Your task to perform on an android device: open chrome privacy settings Image 0: 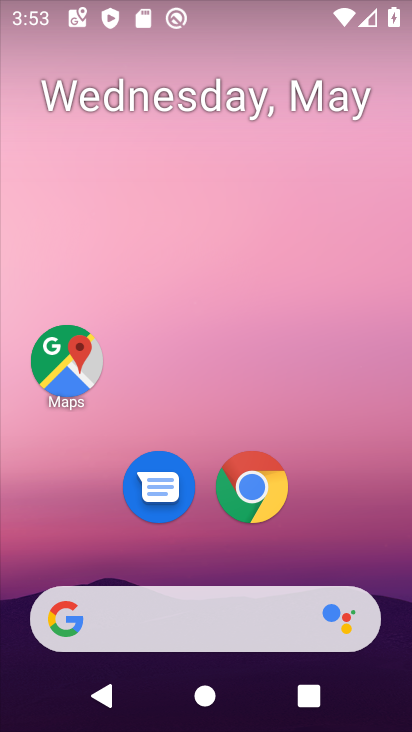
Step 0: drag from (329, 534) to (254, 29)
Your task to perform on an android device: open chrome privacy settings Image 1: 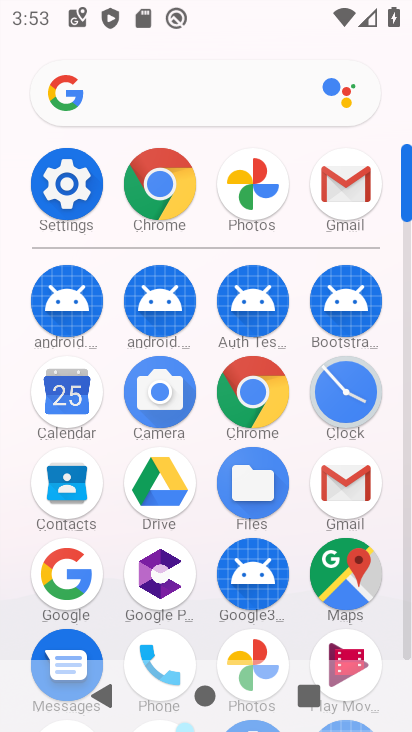
Step 1: drag from (10, 559) to (13, 343)
Your task to perform on an android device: open chrome privacy settings Image 2: 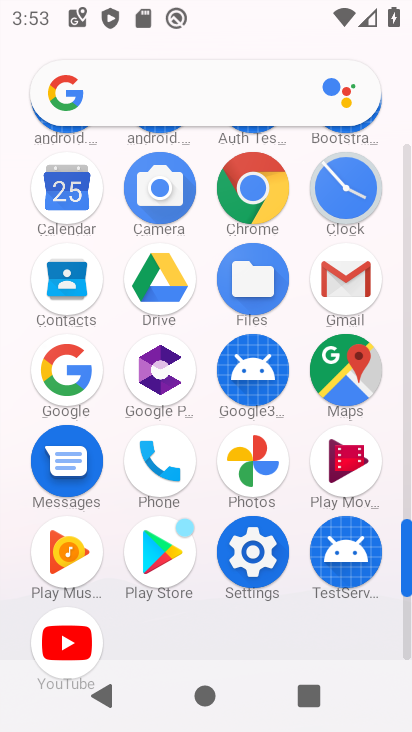
Step 2: click (250, 184)
Your task to perform on an android device: open chrome privacy settings Image 3: 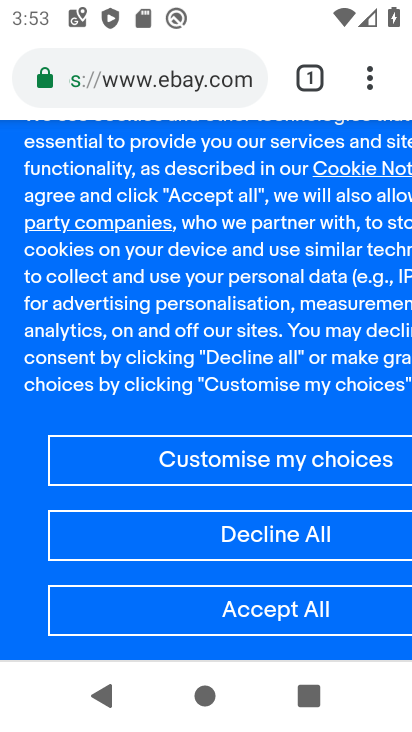
Step 3: drag from (365, 79) to (116, 540)
Your task to perform on an android device: open chrome privacy settings Image 4: 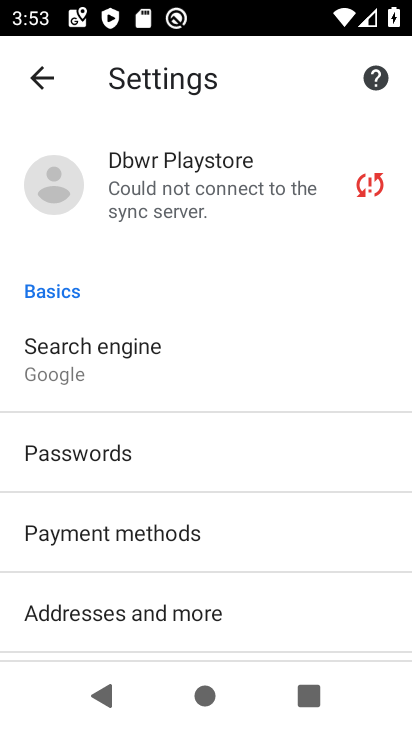
Step 4: drag from (258, 610) to (235, 232)
Your task to perform on an android device: open chrome privacy settings Image 5: 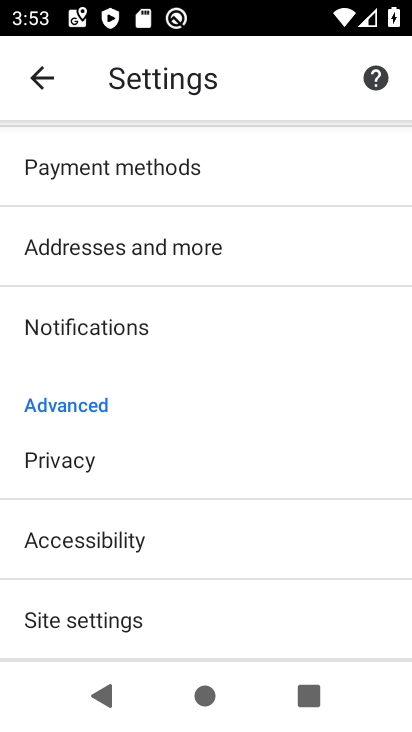
Step 5: drag from (237, 543) to (233, 171)
Your task to perform on an android device: open chrome privacy settings Image 6: 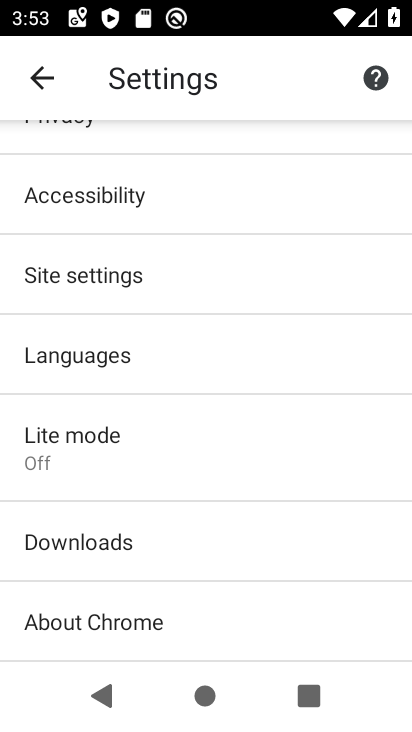
Step 6: drag from (233, 168) to (235, 549)
Your task to perform on an android device: open chrome privacy settings Image 7: 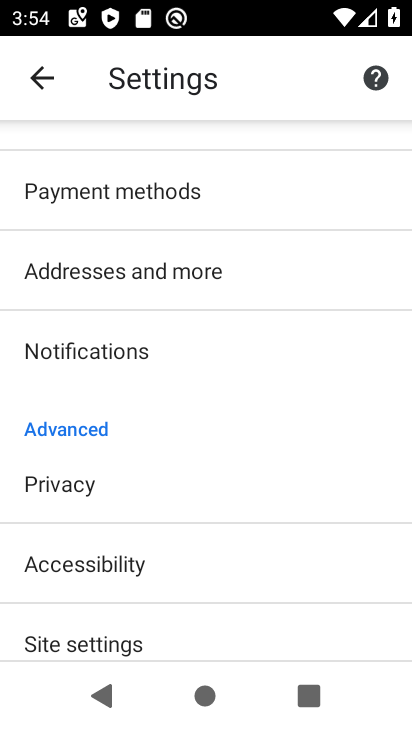
Step 7: click (115, 480)
Your task to perform on an android device: open chrome privacy settings Image 8: 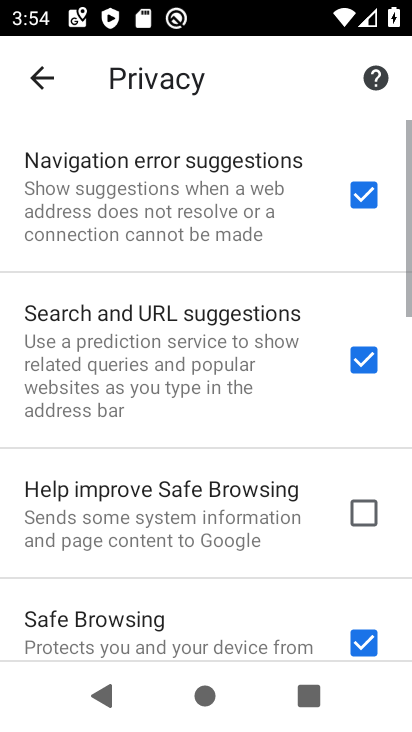
Step 8: task complete